Your task to perform on an android device: Go to Wikipedia Image 0: 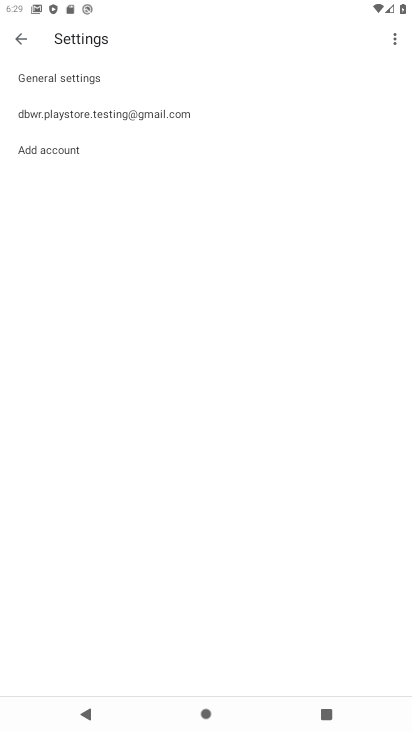
Step 0: press home button
Your task to perform on an android device: Go to Wikipedia Image 1: 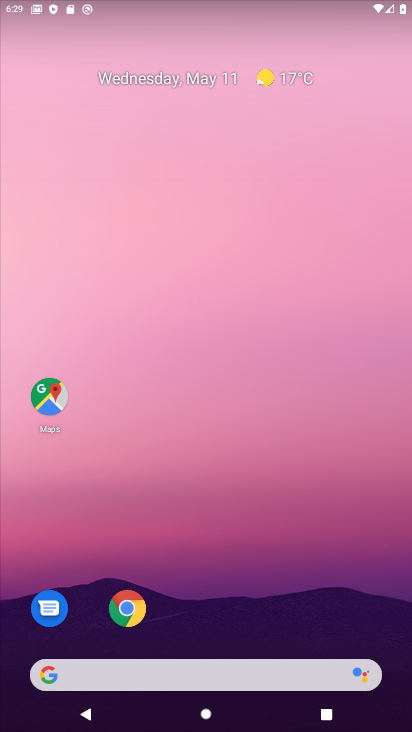
Step 1: click (145, 603)
Your task to perform on an android device: Go to Wikipedia Image 2: 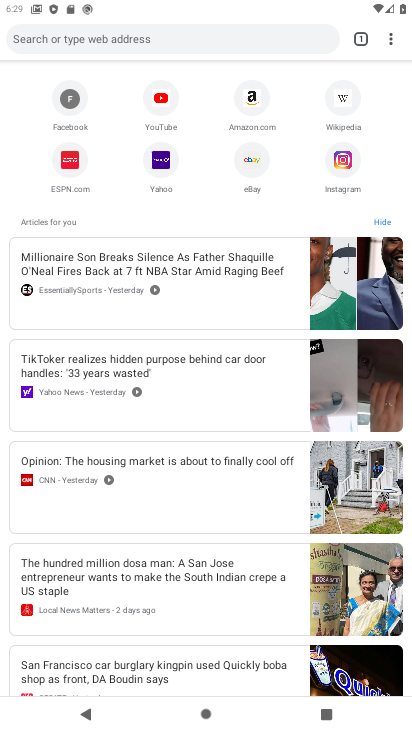
Step 2: click (349, 93)
Your task to perform on an android device: Go to Wikipedia Image 3: 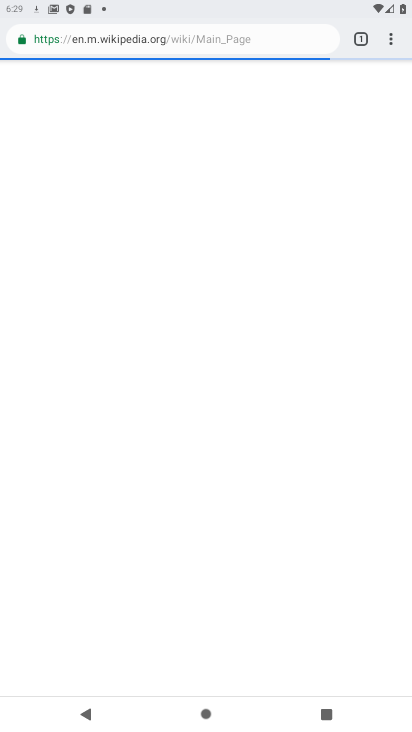
Step 3: task complete